Your task to perform on an android device: change timer sound Image 0: 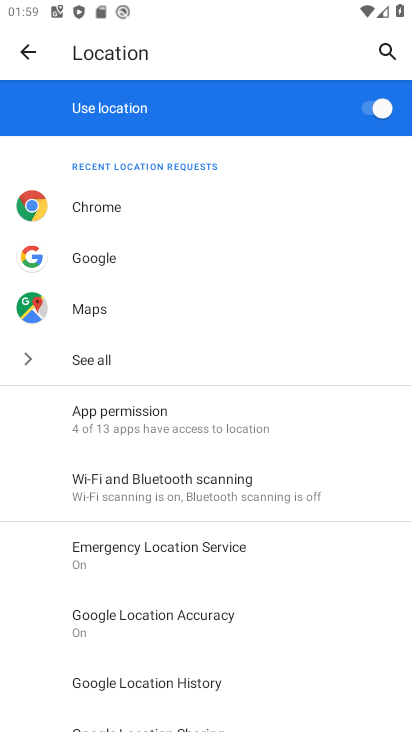
Step 0: press home button
Your task to perform on an android device: change timer sound Image 1: 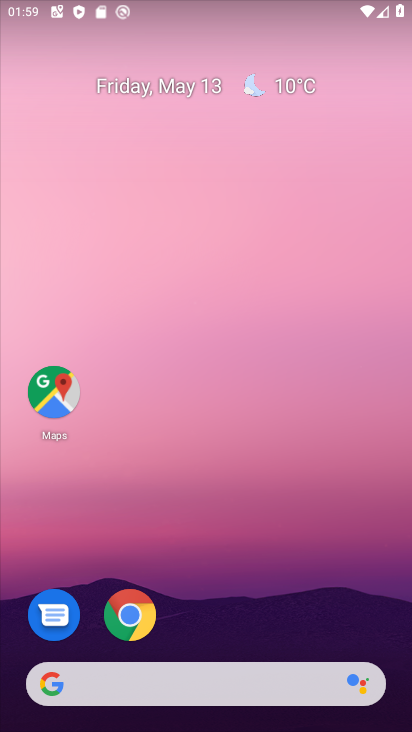
Step 1: drag from (307, 618) to (238, 121)
Your task to perform on an android device: change timer sound Image 2: 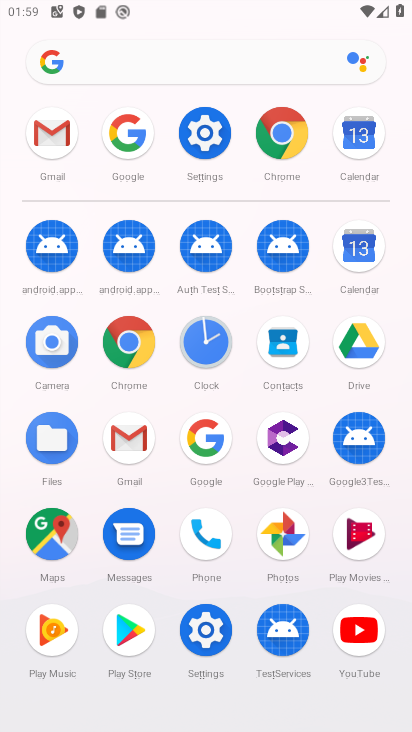
Step 2: click (204, 361)
Your task to perform on an android device: change timer sound Image 3: 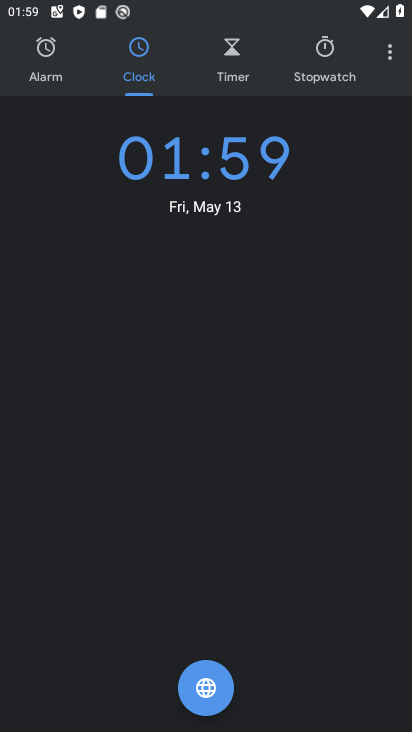
Step 3: click (394, 53)
Your task to perform on an android device: change timer sound Image 4: 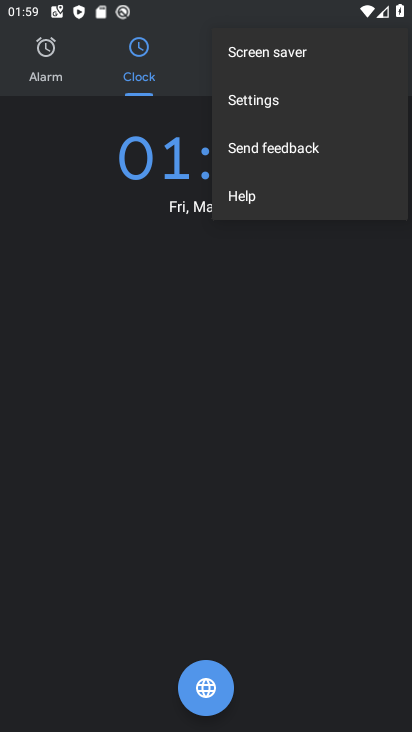
Step 4: click (276, 100)
Your task to perform on an android device: change timer sound Image 5: 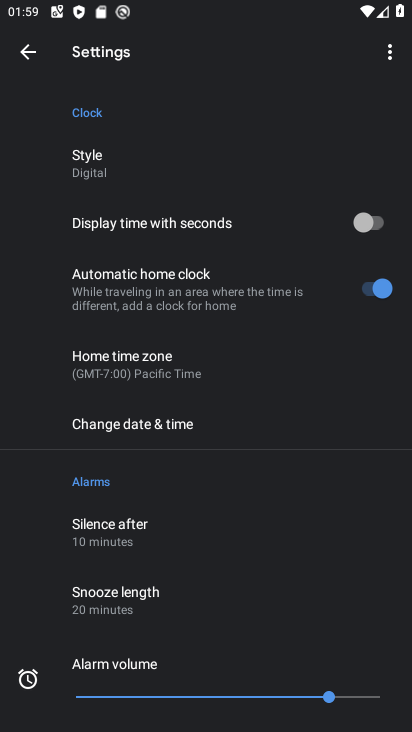
Step 5: drag from (187, 625) to (183, 177)
Your task to perform on an android device: change timer sound Image 6: 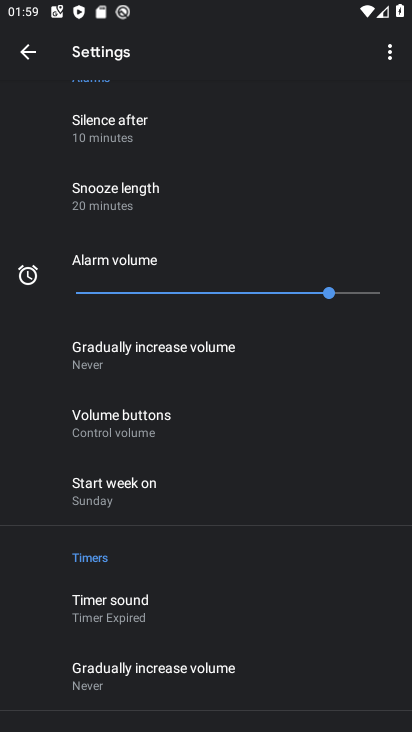
Step 6: click (102, 621)
Your task to perform on an android device: change timer sound Image 7: 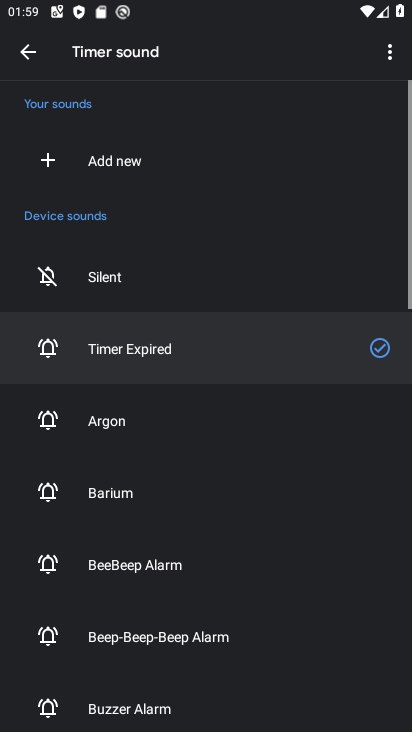
Step 7: click (91, 698)
Your task to perform on an android device: change timer sound Image 8: 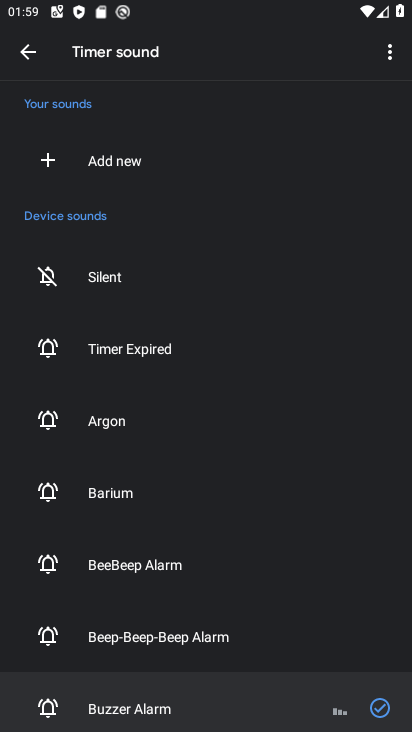
Step 8: task complete